Your task to perform on an android device: Open eBay Image 0: 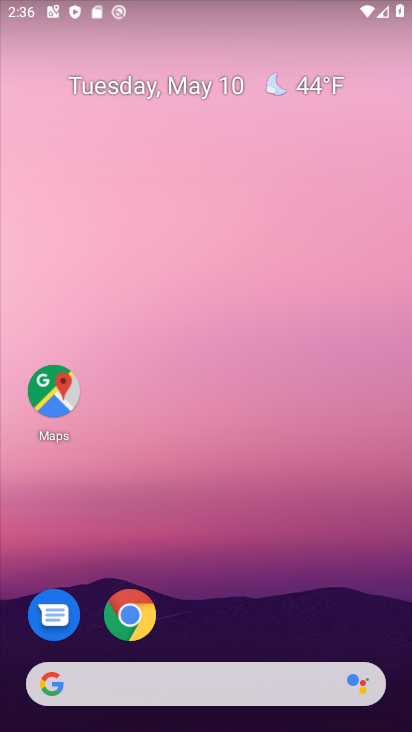
Step 0: click (129, 616)
Your task to perform on an android device: Open eBay Image 1: 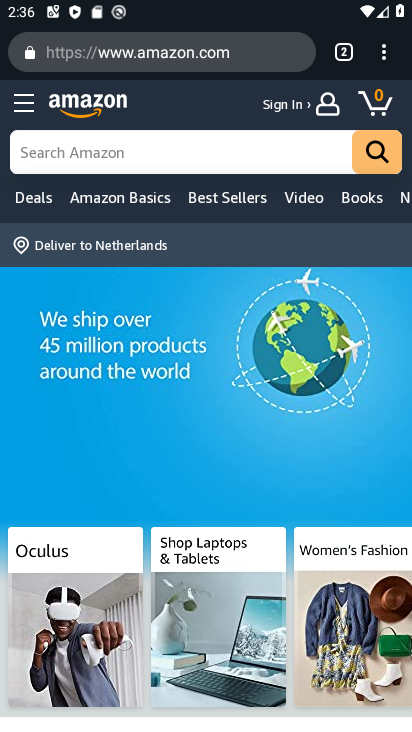
Step 1: click (249, 46)
Your task to perform on an android device: Open eBay Image 2: 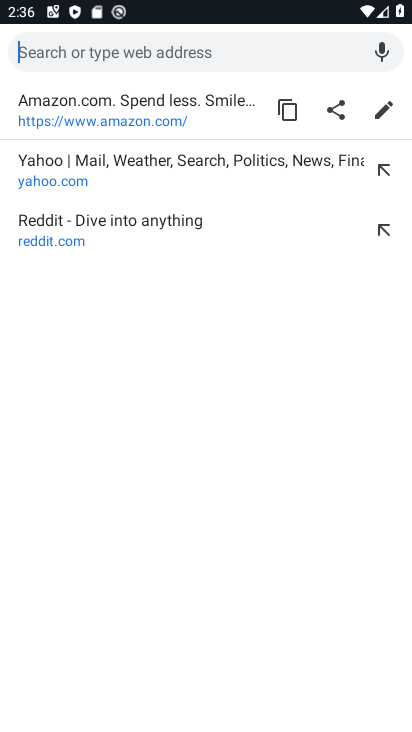
Step 2: click (249, 49)
Your task to perform on an android device: Open eBay Image 3: 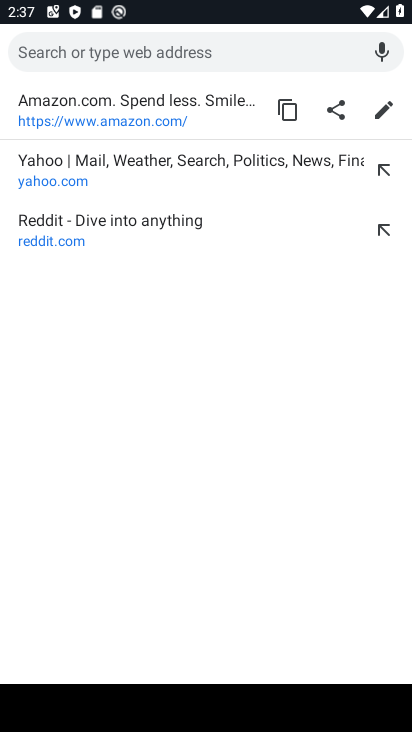
Step 3: type "eBay"
Your task to perform on an android device: Open eBay Image 4: 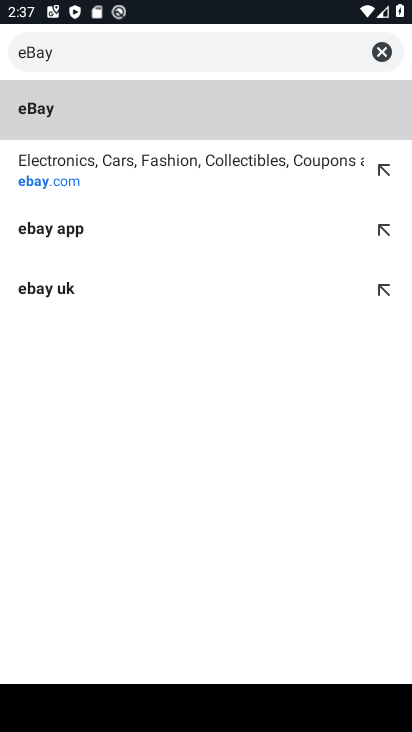
Step 4: click (84, 190)
Your task to perform on an android device: Open eBay Image 5: 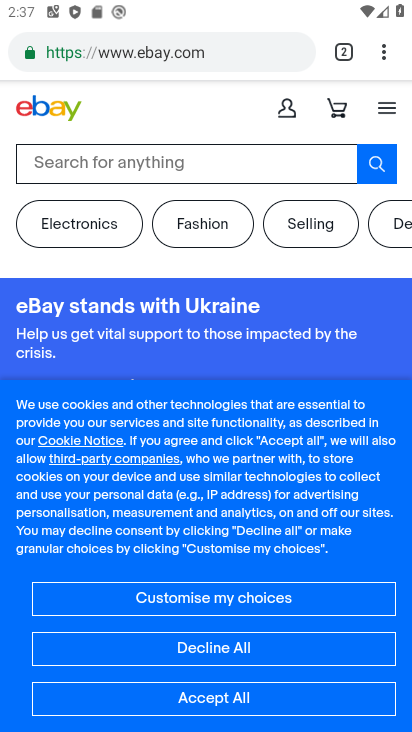
Step 5: task complete